Your task to perform on an android device: Open Wikipedia Image 0: 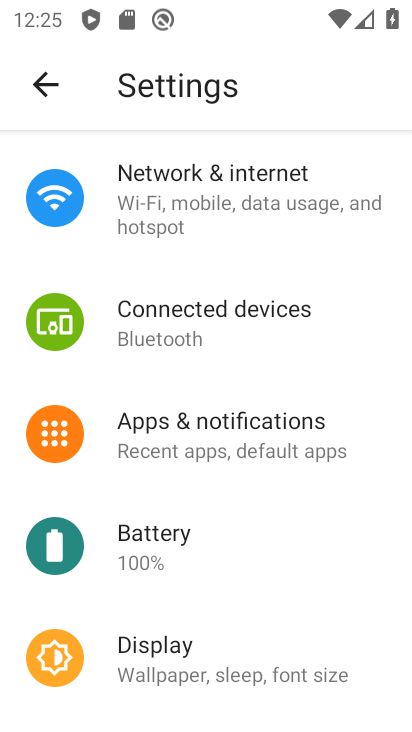
Step 0: press home button
Your task to perform on an android device: Open Wikipedia Image 1: 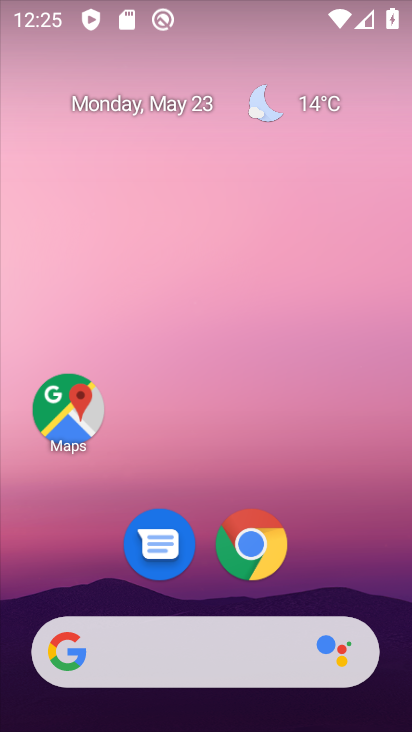
Step 1: click (250, 540)
Your task to perform on an android device: Open Wikipedia Image 2: 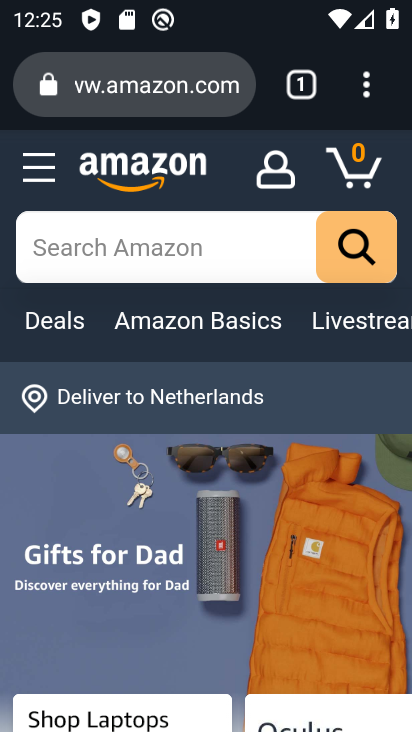
Step 2: click (149, 77)
Your task to perform on an android device: Open Wikipedia Image 3: 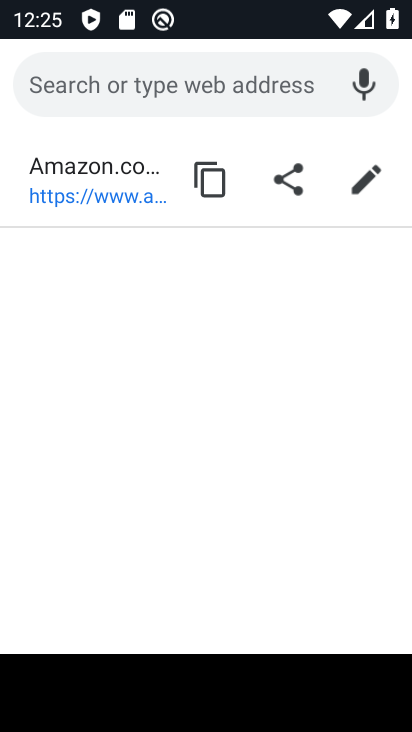
Step 3: type "wikipedia"
Your task to perform on an android device: Open Wikipedia Image 4: 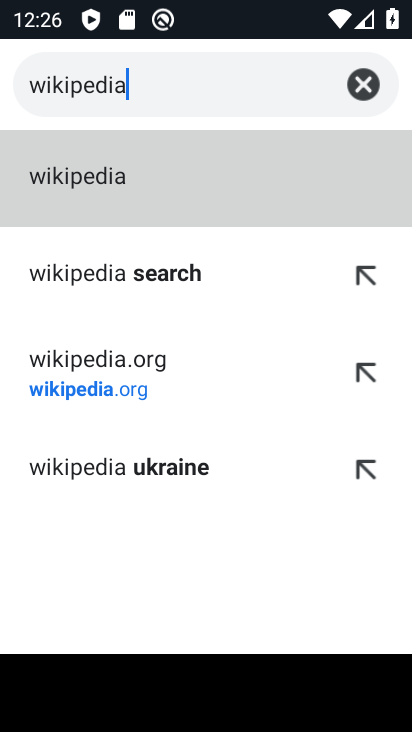
Step 4: click (87, 385)
Your task to perform on an android device: Open Wikipedia Image 5: 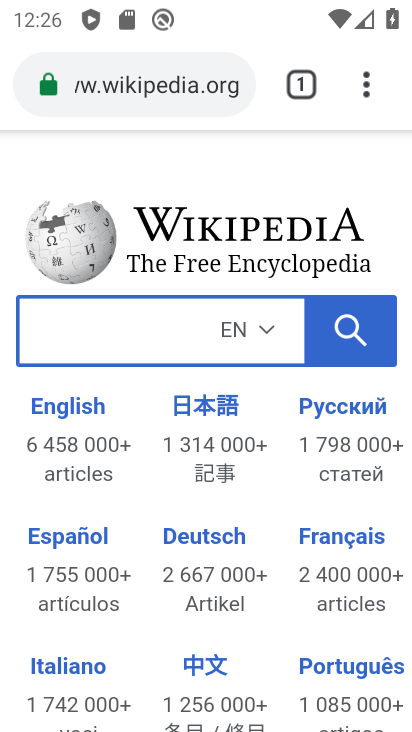
Step 5: task complete